Your task to perform on an android device: Search for pizza restaurants on Maps Image 0: 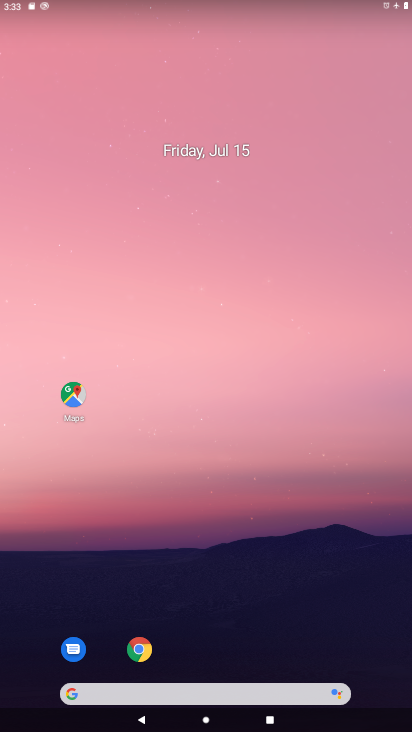
Step 0: click (71, 394)
Your task to perform on an android device: Search for pizza restaurants on Maps Image 1: 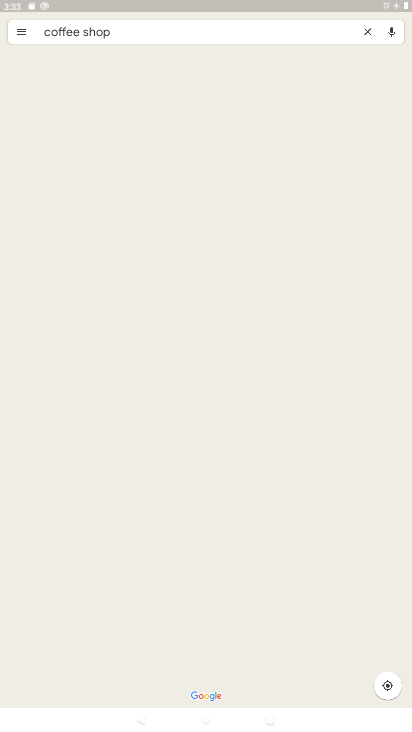
Step 1: click (136, 30)
Your task to perform on an android device: Search for pizza restaurants on Maps Image 2: 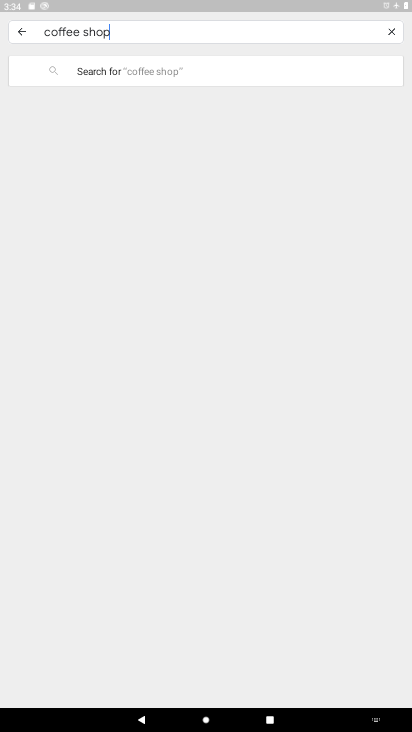
Step 2: click (391, 28)
Your task to perform on an android device: Search for pizza restaurants on Maps Image 3: 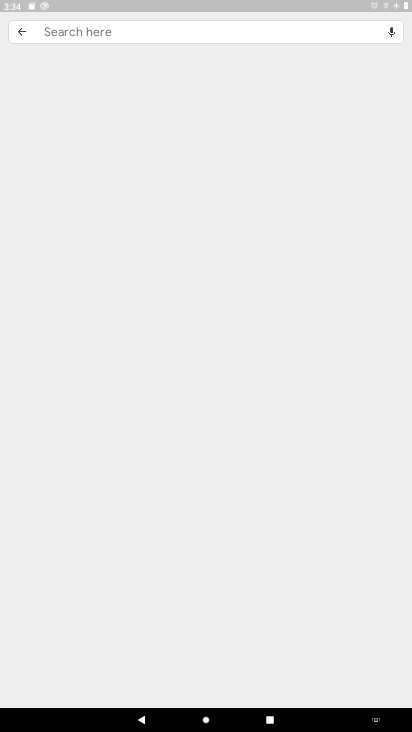
Step 3: click (100, 26)
Your task to perform on an android device: Search for pizza restaurants on Maps Image 4: 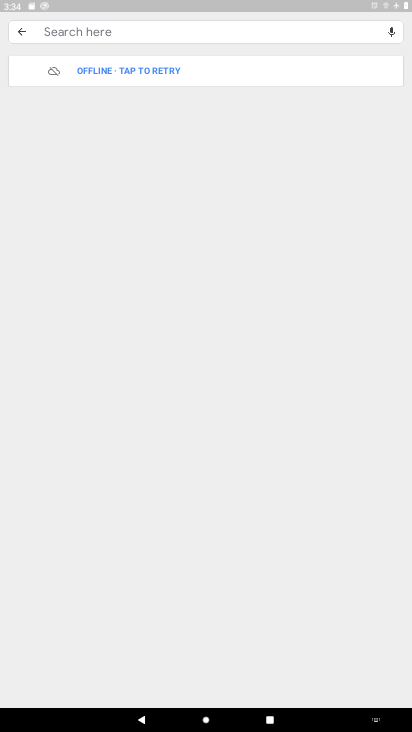
Step 4: type "pizza restaurants"
Your task to perform on an android device: Search for pizza restaurants on Maps Image 5: 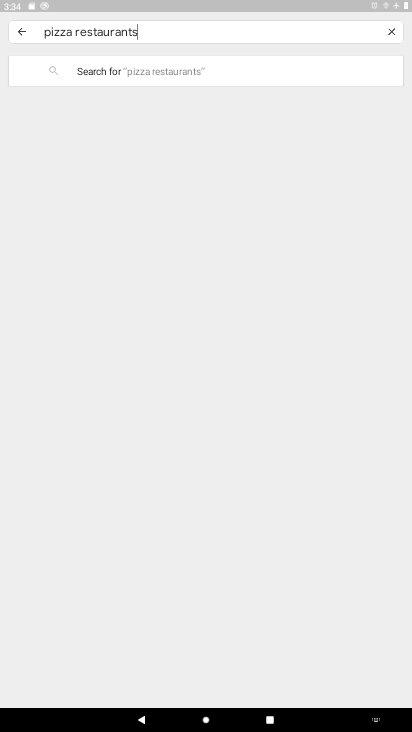
Step 5: click (135, 69)
Your task to perform on an android device: Search for pizza restaurants on Maps Image 6: 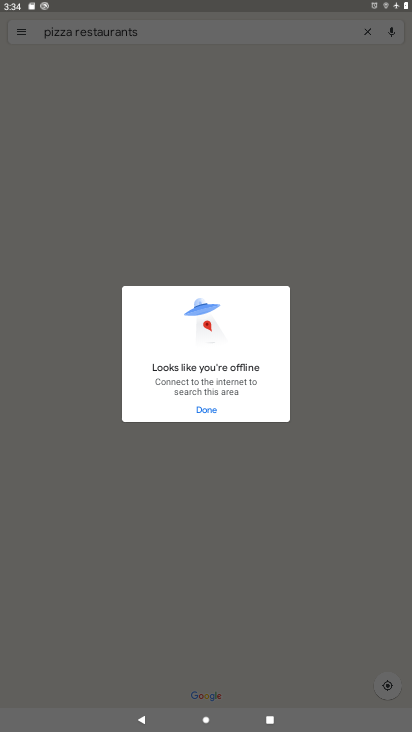
Step 6: click (204, 405)
Your task to perform on an android device: Search for pizza restaurants on Maps Image 7: 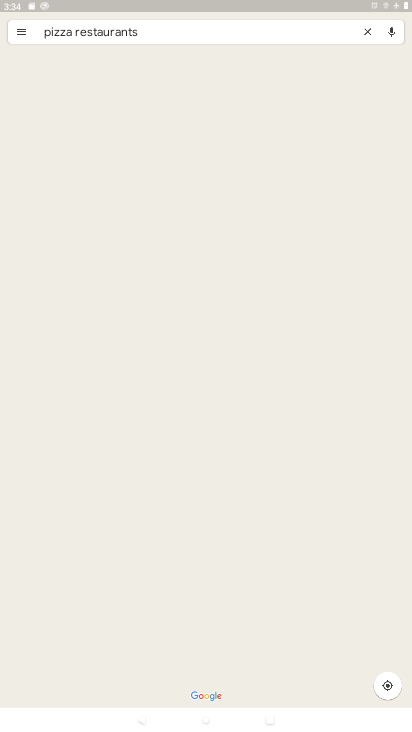
Step 7: task complete